Your task to perform on an android device: Open maps Image 0: 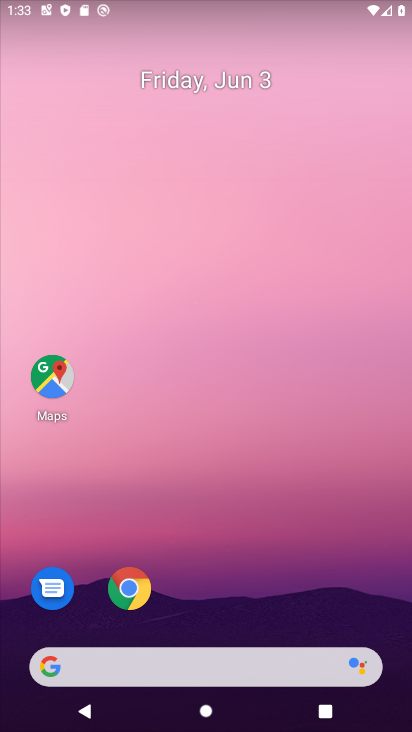
Step 0: press home button
Your task to perform on an android device: Open maps Image 1: 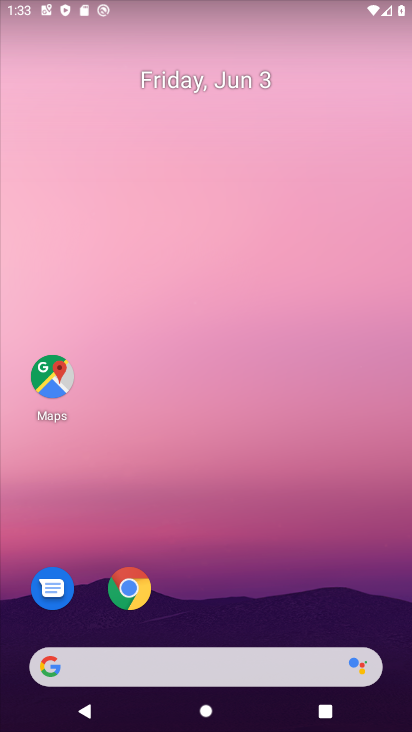
Step 1: click (39, 373)
Your task to perform on an android device: Open maps Image 2: 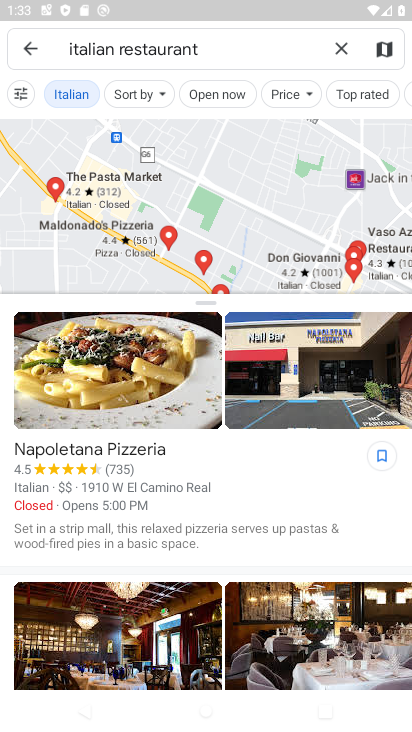
Step 2: click (340, 49)
Your task to perform on an android device: Open maps Image 3: 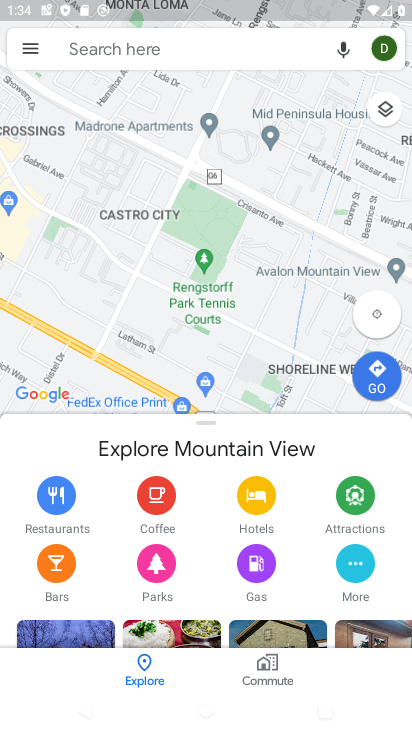
Step 3: task complete